Your task to perform on an android device: What's the weather? Image 0: 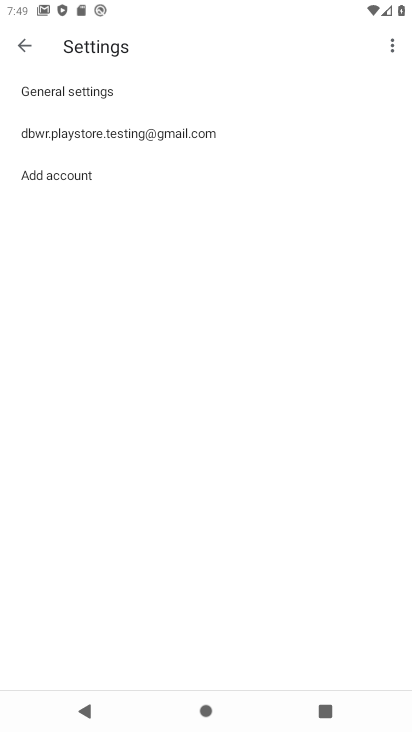
Step 0: press home button
Your task to perform on an android device: What's the weather? Image 1: 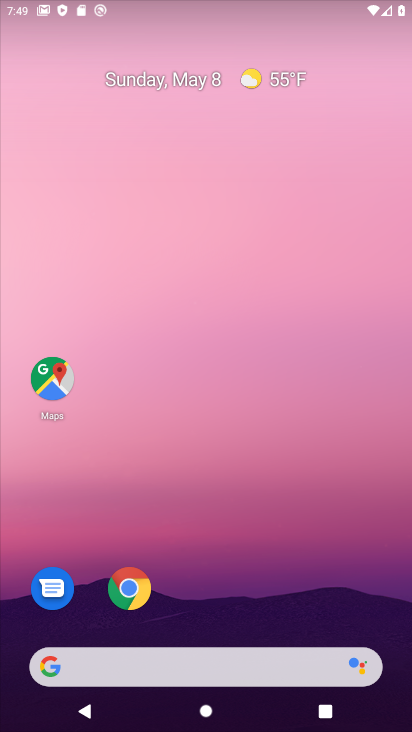
Step 1: click (129, 666)
Your task to perform on an android device: What's the weather? Image 2: 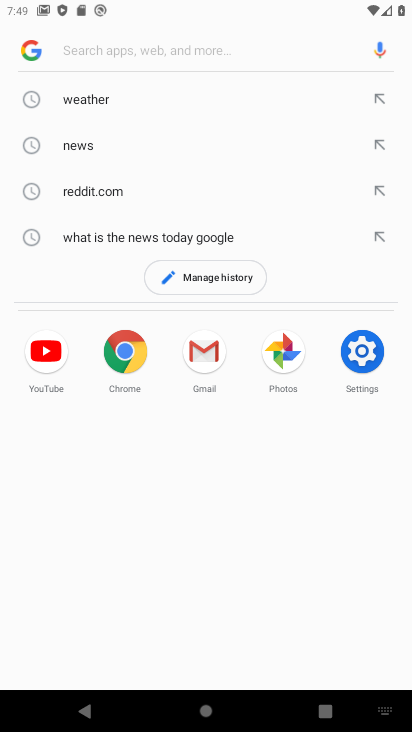
Step 2: click (109, 106)
Your task to perform on an android device: What's the weather? Image 3: 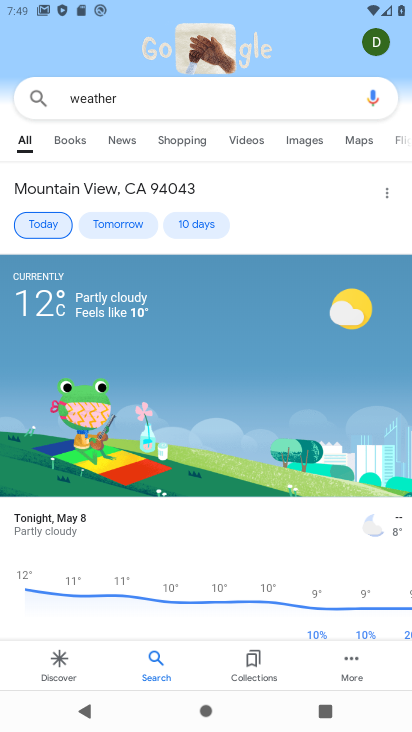
Step 3: task complete